Your task to perform on an android device: turn off priority inbox in the gmail app Image 0: 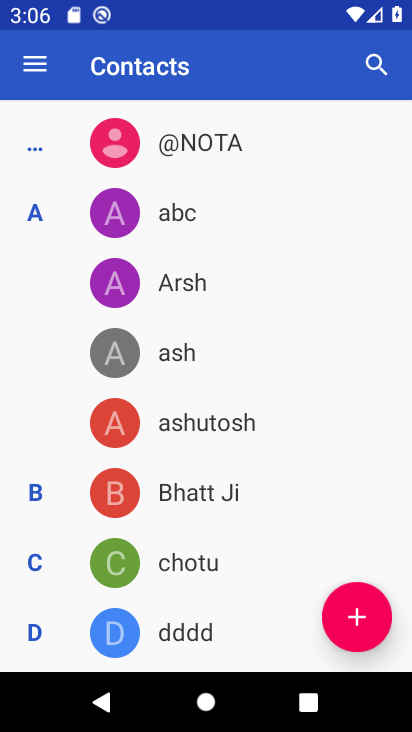
Step 0: press home button
Your task to perform on an android device: turn off priority inbox in the gmail app Image 1: 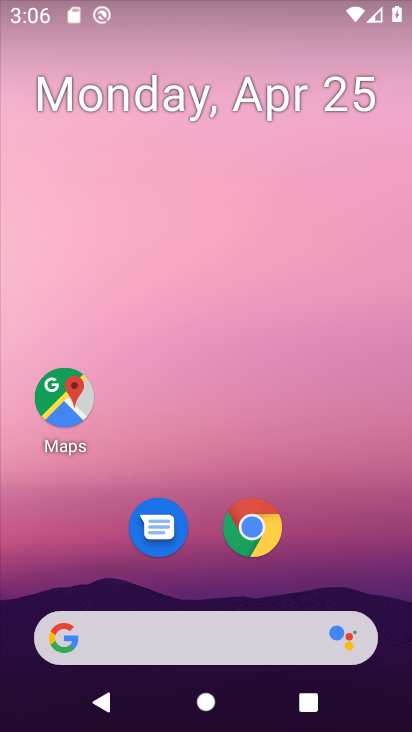
Step 1: drag from (188, 637) to (323, 194)
Your task to perform on an android device: turn off priority inbox in the gmail app Image 2: 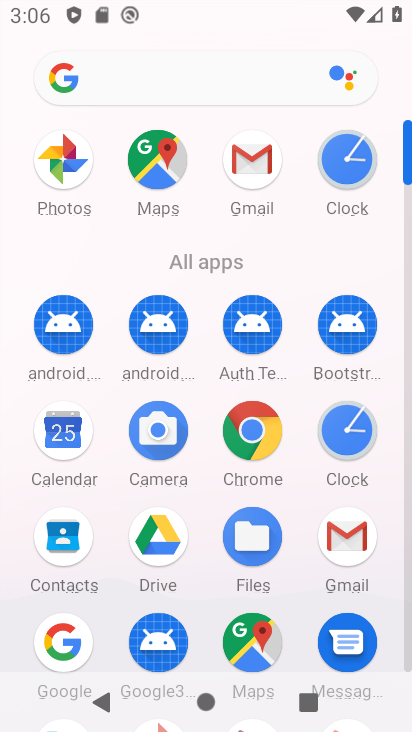
Step 2: click (256, 171)
Your task to perform on an android device: turn off priority inbox in the gmail app Image 3: 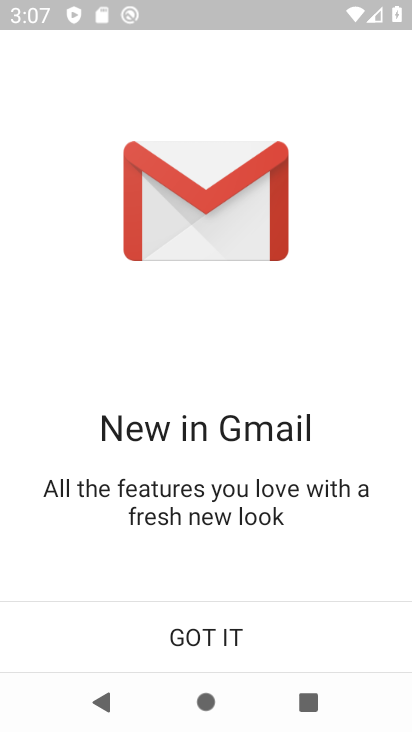
Step 3: click (222, 634)
Your task to perform on an android device: turn off priority inbox in the gmail app Image 4: 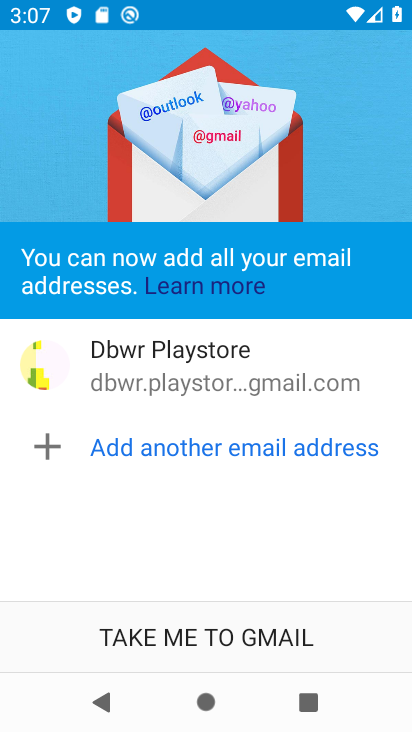
Step 4: click (222, 634)
Your task to perform on an android device: turn off priority inbox in the gmail app Image 5: 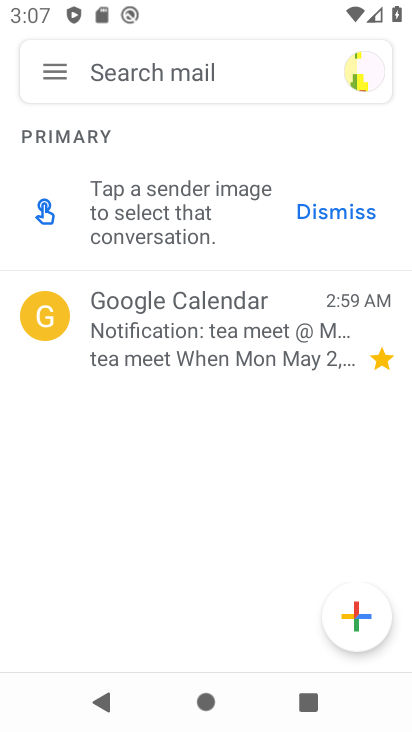
Step 5: click (53, 68)
Your task to perform on an android device: turn off priority inbox in the gmail app Image 6: 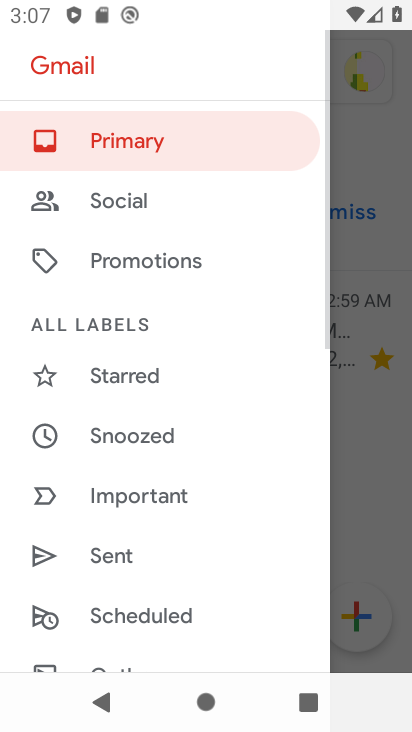
Step 6: drag from (208, 562) to (313, 157)
Your task to perform on an android device: turn off priority inbox in the gmail app Image 7: 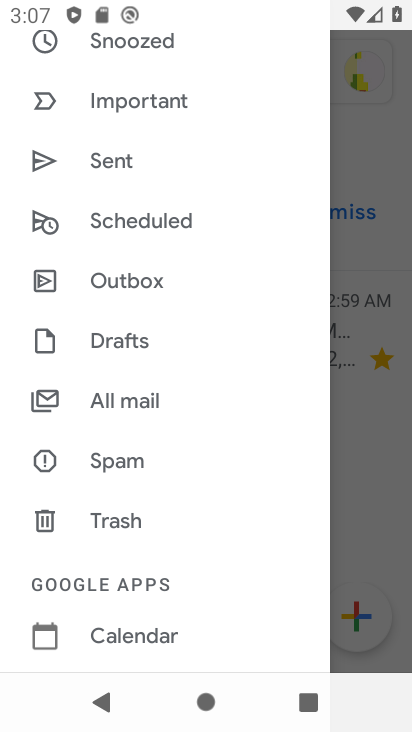
Step 7: drag from (151, 570) to (221, 185)
Your task to perform on an android device: turn off priority inbox in the gmail app Image 8: 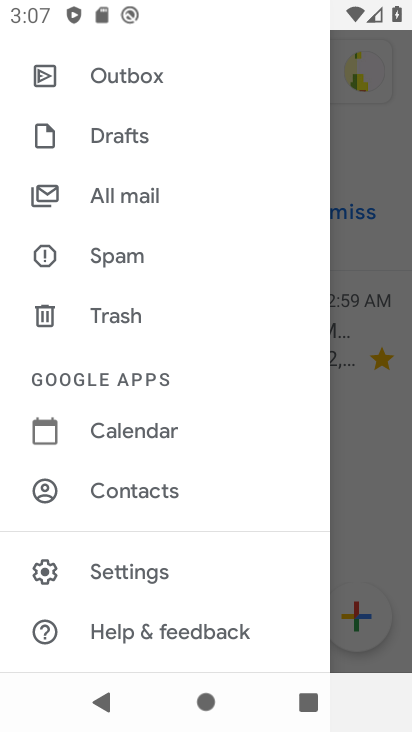
Step 8: click (126, 576)
Your task to perform on an android device: turn off priority inbox in the gmail app Image 9: 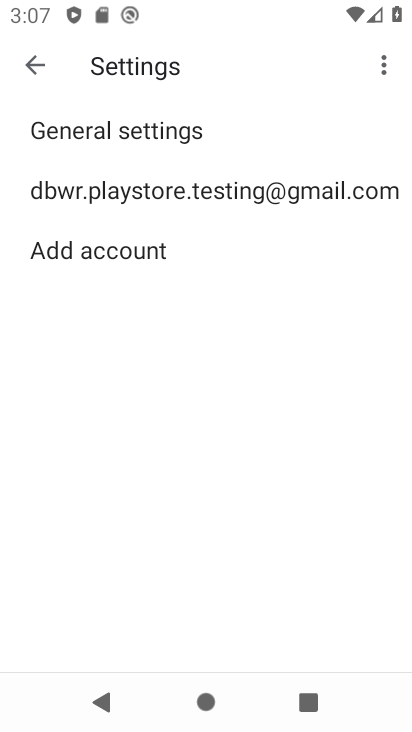
Step 9: click (212, 188)
Your task to perform on an android device: turn off priority inbox in the gmail app Image 10: 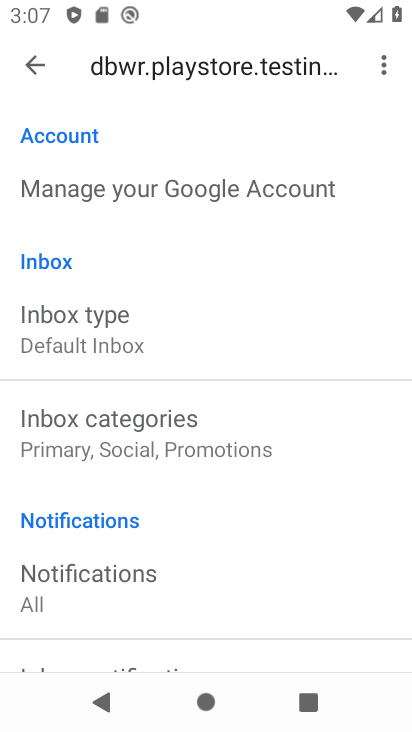
Step 10: click (112, 333)
Your task to perform on an android device: turn off priority inbox in the gmail app Image 11: 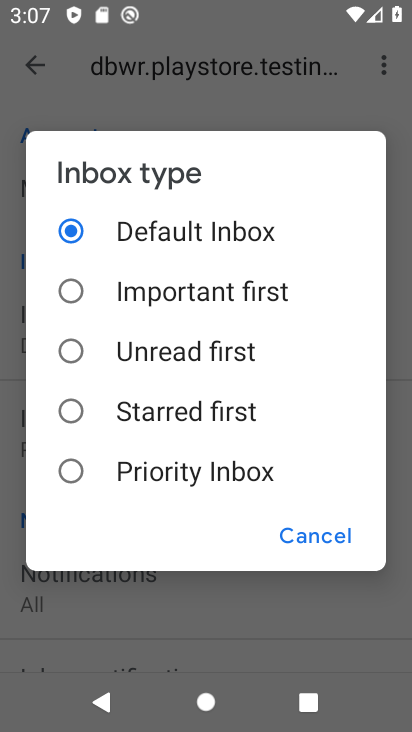
Step 11: task complete